Your task to perform on an android device: Clear the shopping cart on ebay.com. Search for razer kraken on ebay.com, select the first entry, and add it to the cart. Image 0: 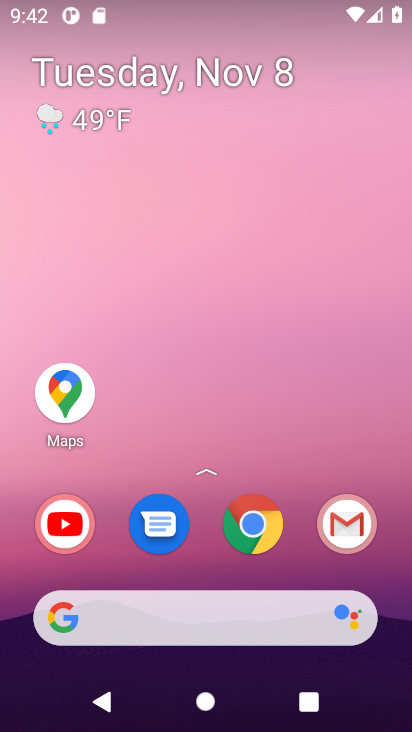
Step 0: click (248, 523)
Your task to perform on an android device: Clear the shopping cart on ebay.com. Search for razer kraken on ebay.com, select the first entry, and add it to the cart. Image 1: 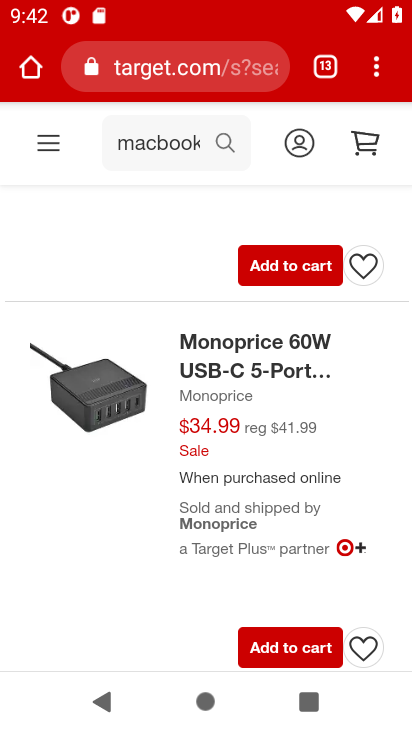
Step 1: click (185, 78)
Your task to perform on an android device: Clear the shopping cart on ebay.com. Search for razer kraken on ebay.com, select the first entry, and add it to the cart. Image 2: 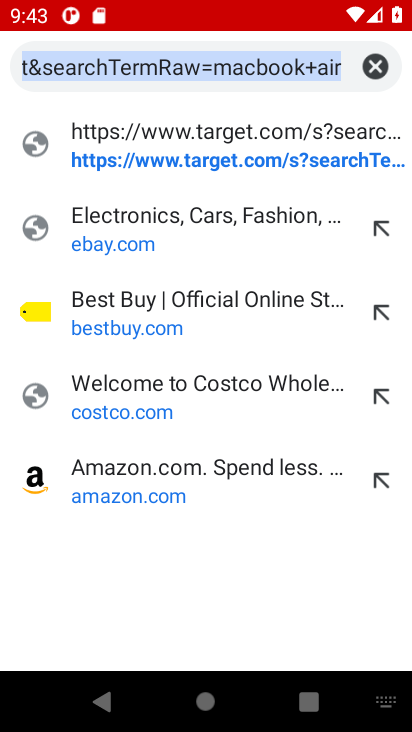
Step 2: click (107, 236)
Your task to perform on an android device: Clear the shopping cart on ebay.com. Search for razer kraken on ebay.com, select the first entry, and add it to the cart. Image 3: 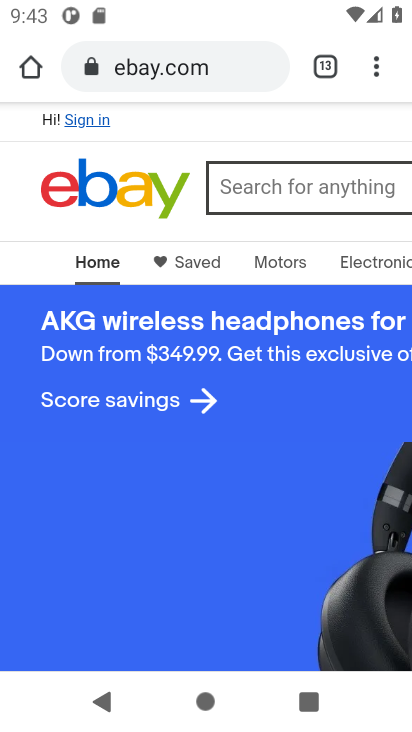
Step 3: drag from (386, 151) to (38, 157)
Your task to perform on an android device: Clear the shopping cart on ebay.com. Search for razer kraken on ebay.com, select the first entry, and add it to the cart. Image 4: 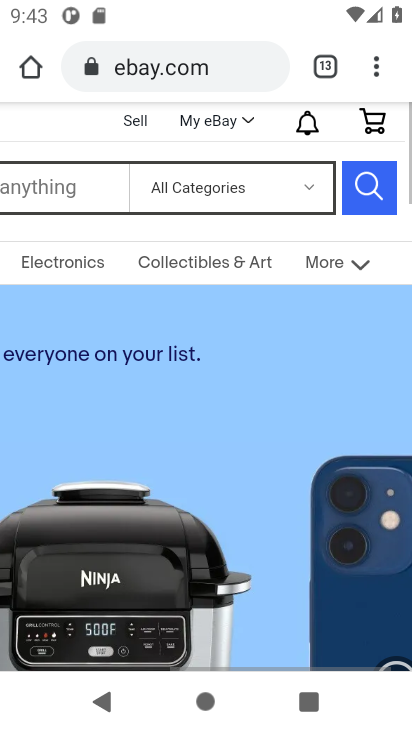
Step 4: click (345, 131)
Your task to perform on an android device: Clear the shopping cart on ebay.com. Search for razer kraken on ebay.com, select the first entry, and add it to the cart. Image 5: 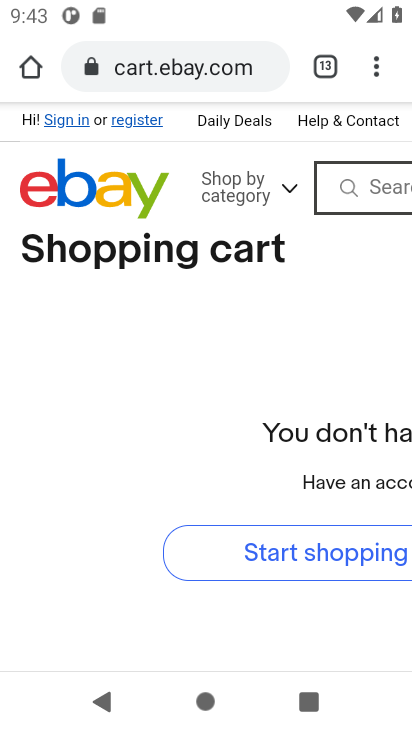
Step 5: click (383, 191)
Your task to perform on an android device: Clear the shopping cart on ebay.com. Search for razer kraken on ebay.com, select the first entry, and add it to the cart. Image 6: 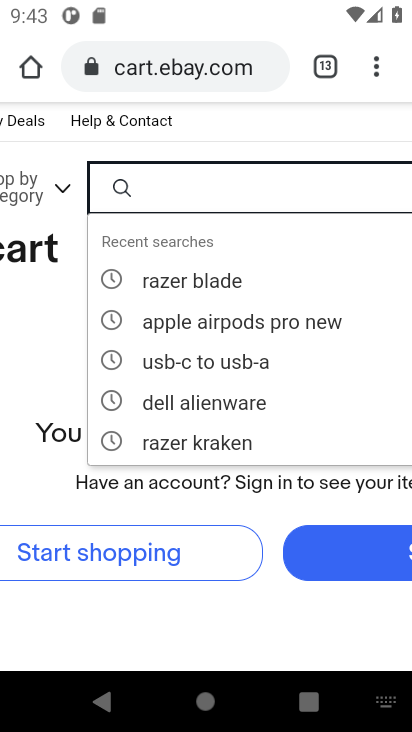
Step 6: type "razer kraken"
Your task to perform on an android device: Clear the shopping cart on ebay.com. Search for razer kraken on ebay.com, select the first entry, and add it to the cart. Image 7: 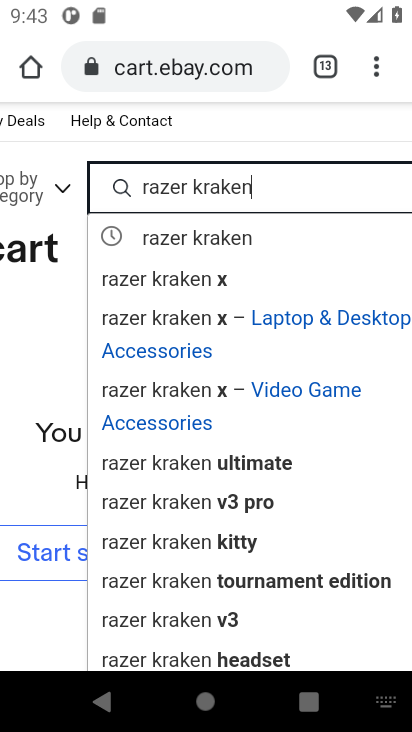
Step 7: click (224, 238)
Your task to perform on an android device: Clear the shopping cart on ebay.com. Search for razer kraken on ebay.com, select the first entry, and add it to the cart. Image 8: 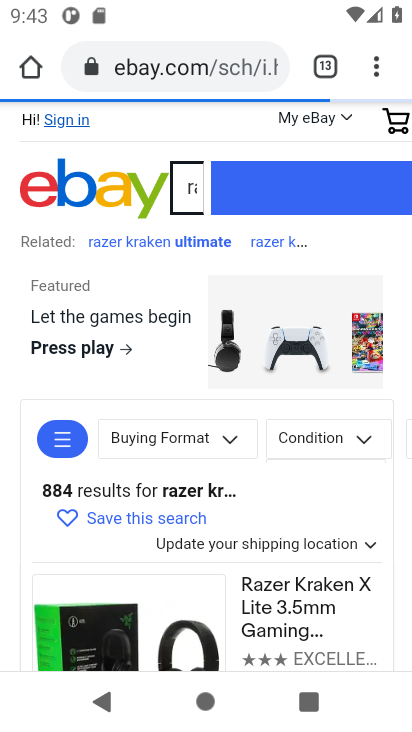
Step 8: drag from (235, 504) to (245, 308)
Your task to perform on an android device: Clear the shopping cart on ebay.com. Search for razer kraken on ebay.com, select the first entry, and add it to the cart. Image 9: 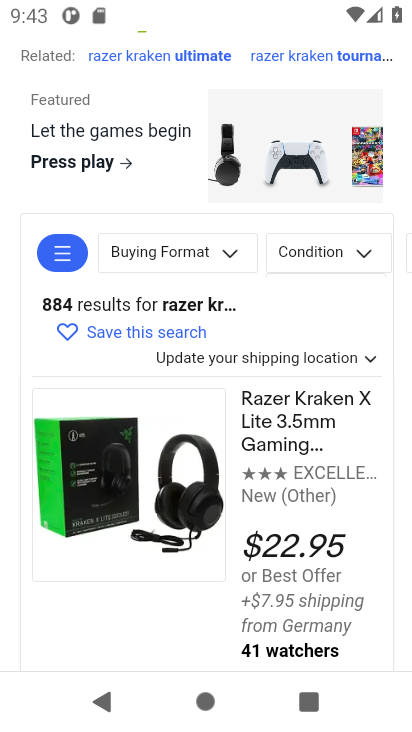
Step 9: click (259, 490)
Your task to perform on an android device: Clear the shopping cart on ebay.com. Search for razer kraken on ebay.com, select the first entry, and add it to the cart. Image 10: 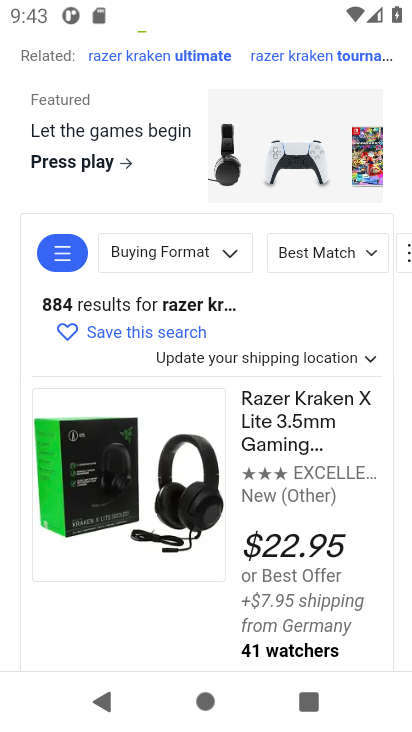
Step 10: click (151, 509)
Your task to perform on an android device: Clear the shopping cart on ebay.com. Search for razer kraken on ebay.com, select the first entry, and add it to the cart. Image 11: 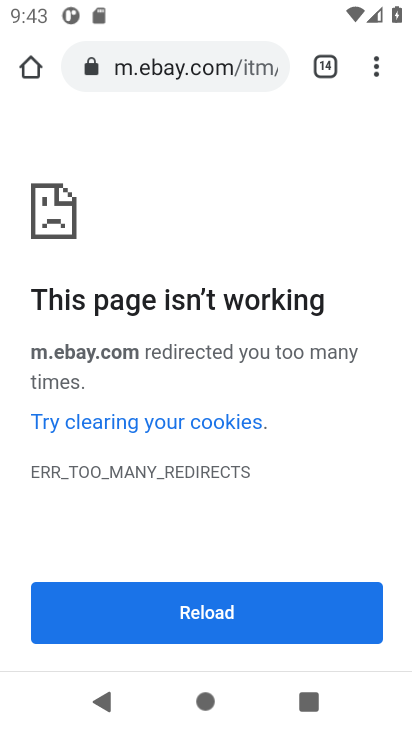
Step 11: press back button
Your task to perform on an android device: Clear the shopping cart on ebay.com. Search for razer kraken on ebay.com, select the first entry, and add it to the cart. Image 12: 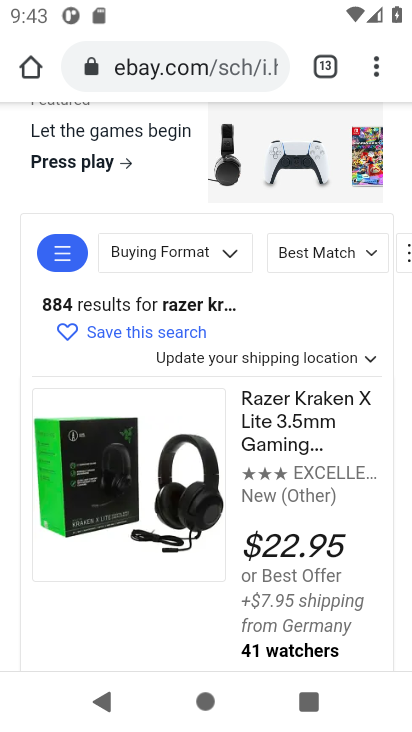
Step 12: drag from (209, 435) to (236, 206)
Your task to perform on an android device: Clear the shopping cart on ebay.com. Search for razer kraken on ebay.com, select the first entry, and add it to the cart. Image 13: 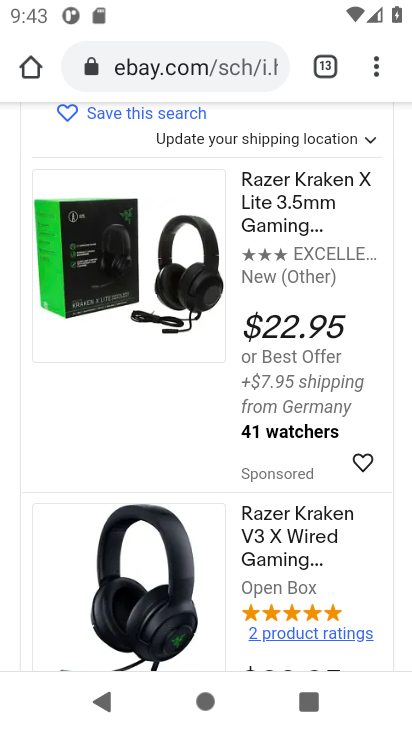
Step 13: click (304, 392)
Your task to perform on an android device: Clear the shopping cart on ebay.com. Search for razer kraken on ebay.com, select the first entry, and add it to the cart. Image 14: 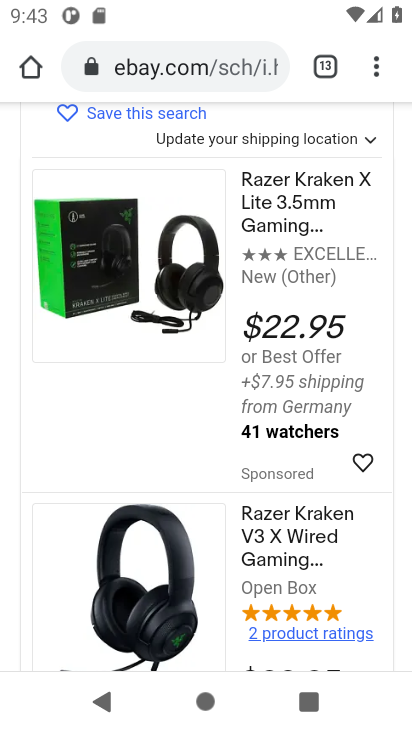
Step 14: click (342, 234)
Your task to perform on an android device: Clear the shopping cart on ebay.com. Search for razer kraken on ebay.com, select the first entry, and add it to the cart. Image 15: 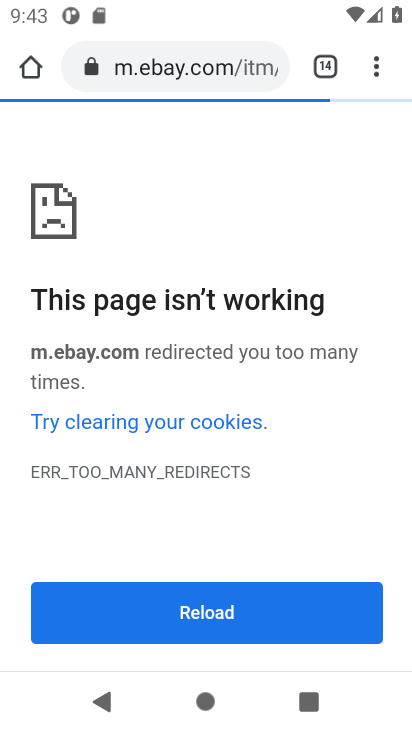
Step 15: task complete